Your task to perform on an android device: See recent photos Image 0: 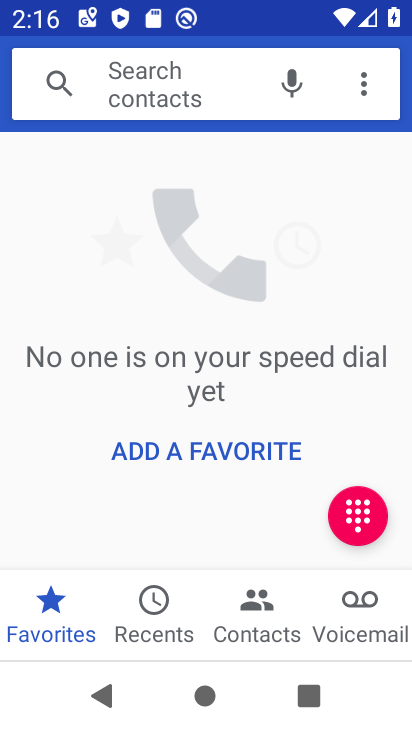
Step 0: press home button
Your task to perform on an android device: See recent photos Image 1: 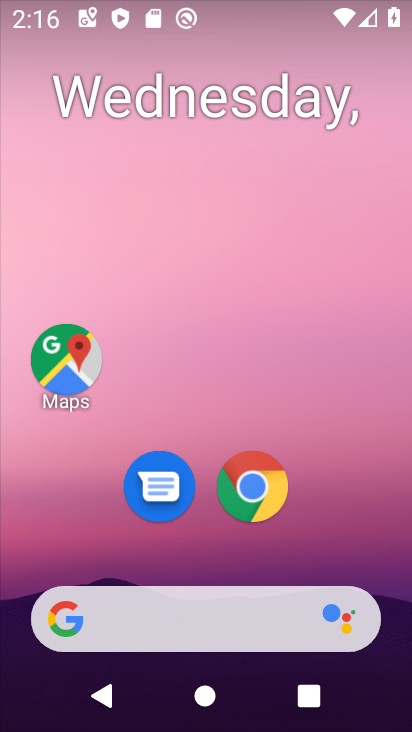
Step 1: drag from (332, 523) to (316, 173)
Your task to perform on an android device: See recent photos Image 2: 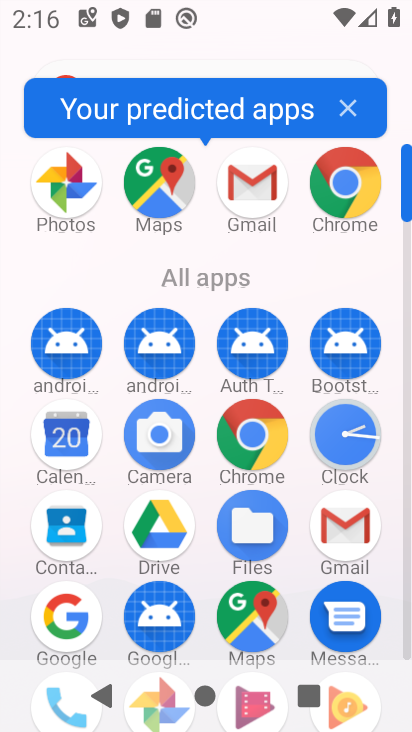
Step 2: click (60, 198)
Your task to perform on an android device: See recent photos Image 3: 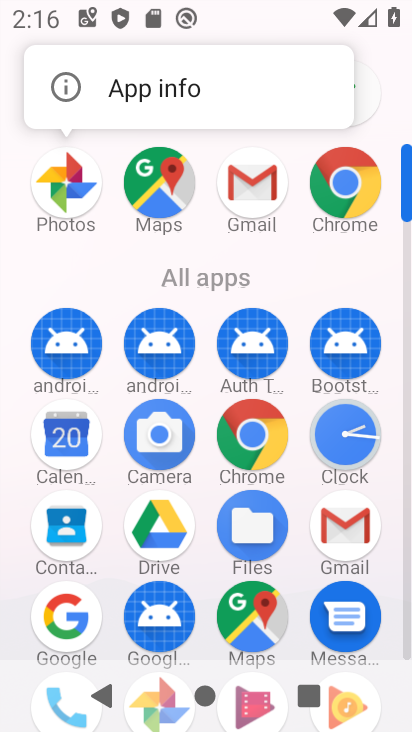
Step 3: click (73, 198)
Your task to perform on an android device: See recent photos Image 4: 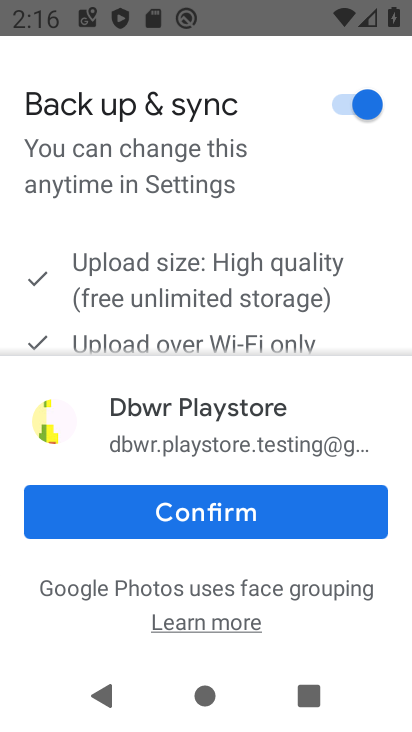
Step 4: click (226, 525)
Your task to perform on an android device: See recent photos Image 5: 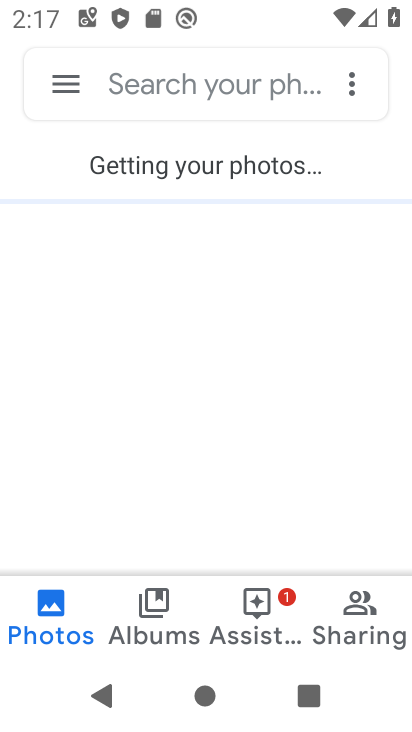
Step 5: click (148, 601)
Your task to perform on an android device: See recent photos Image 6: 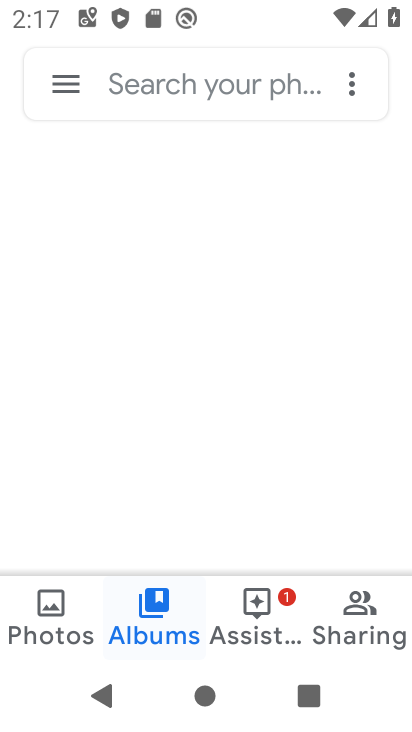
Step 6: click (42, 616)
Your task to perform on an android device: See recent photos Image 7: 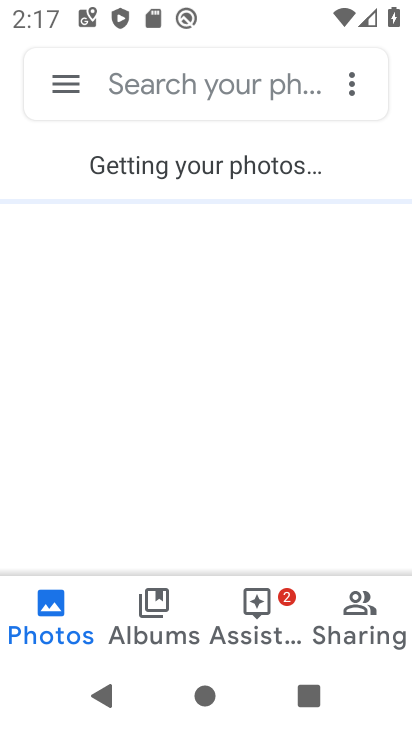
Step 7: click (62, 605)
Your task to perform on an android device: See recent photos Image 8: 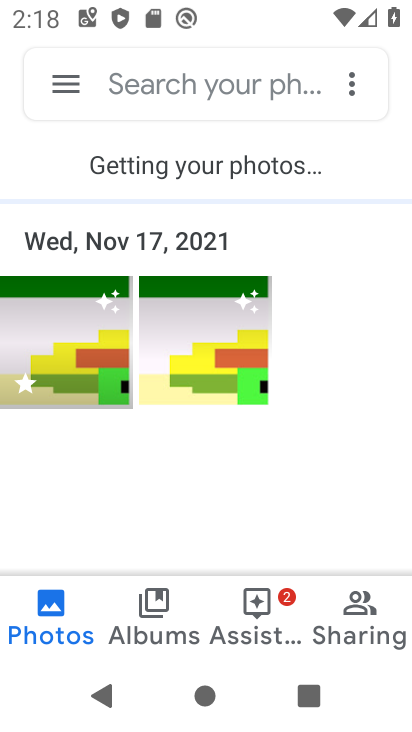
Step 8: task complete